Your task to perform on an android device: add a contact Image 0: 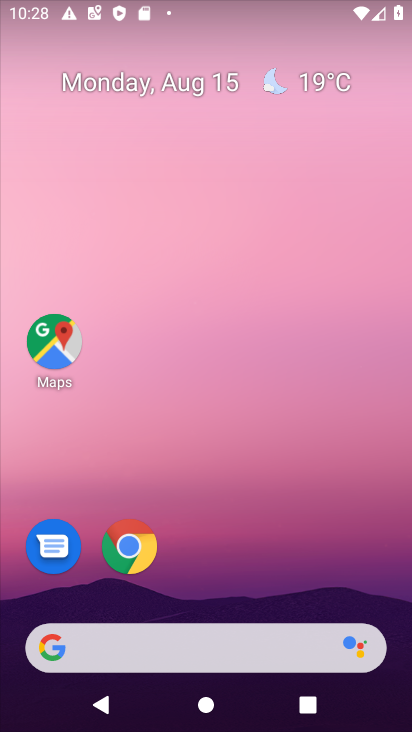
Step 0: drag from (258, 171) to (258, 95)
Your task to perform on an android device: add a contact Image 1: 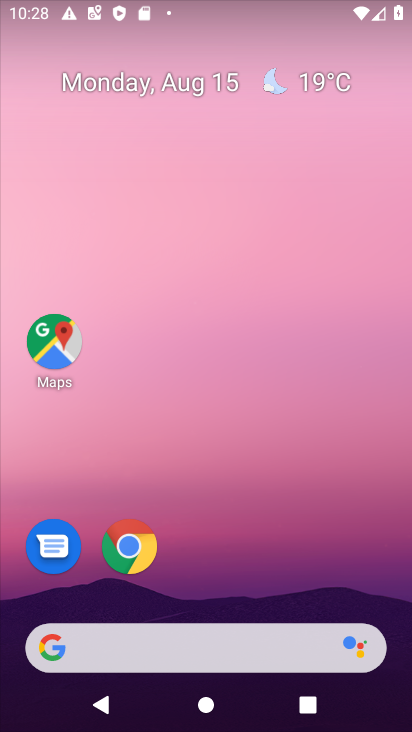
Step 1: drag from (219, 606) to (213, 74)
Your task to perform on an android device: add a contact Image 2: 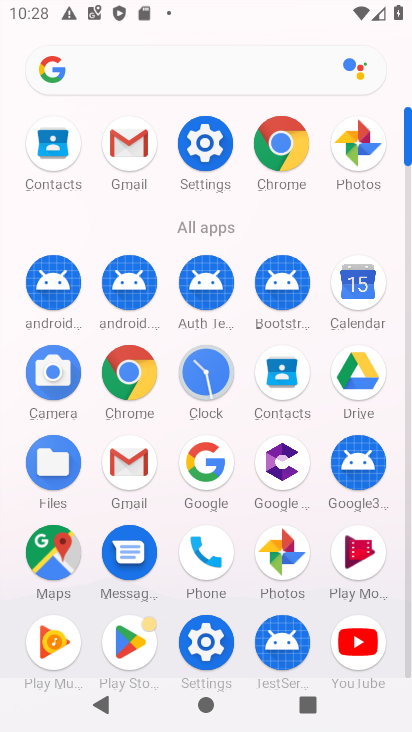
Step 2: click (287, 367)
Your task to perform on an android device: add a contact Image 3: 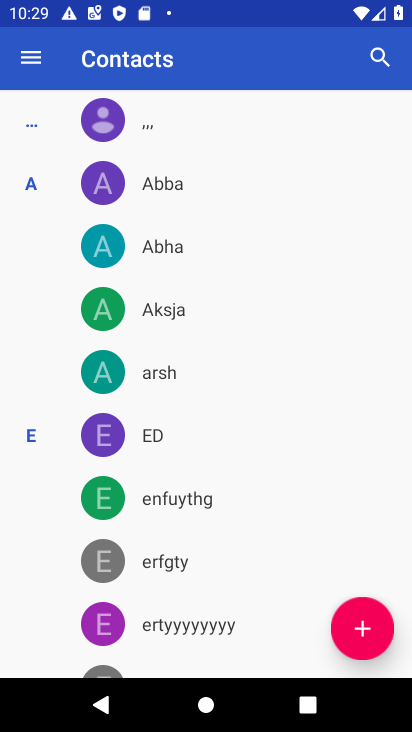
Step 3: click (357, 627)
Your task to perform on an android device: add a contact Image 4: 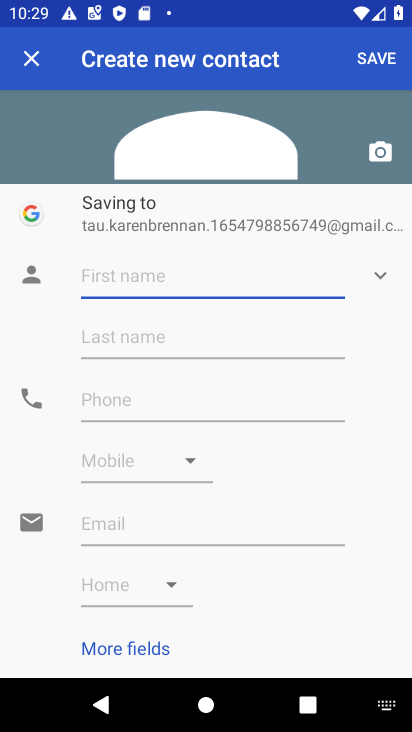
Step 4: type "yryr"
Your task to perform on an android device: add a contact Image 5: 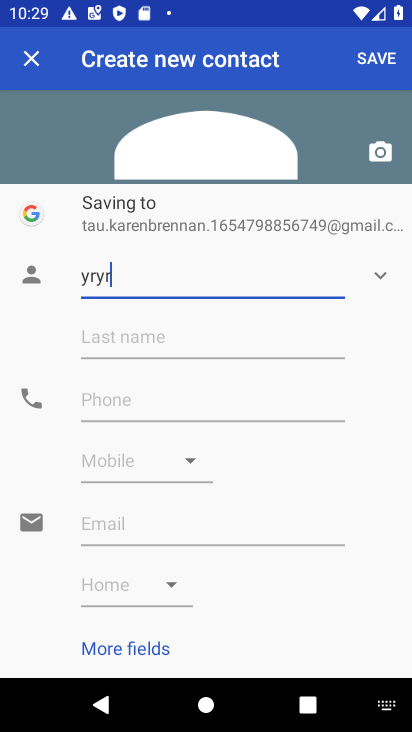
Step 5: type ""
Your task to perform on an android device: add a contact Image 6: 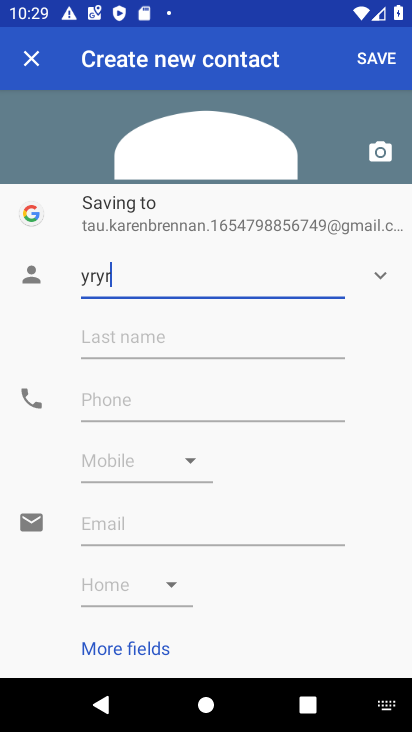
Step 6: click (149, 402)
Your task to perform on an android device: add a contact Image 7: 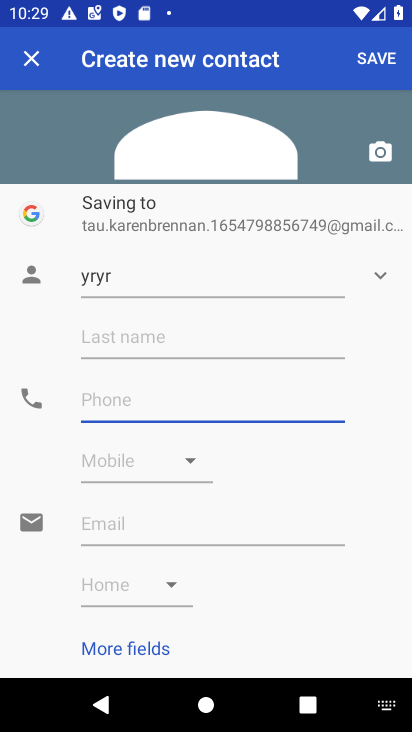
Step 7: type "56565"
Your task to perform on an android device: add a contact Image 8: 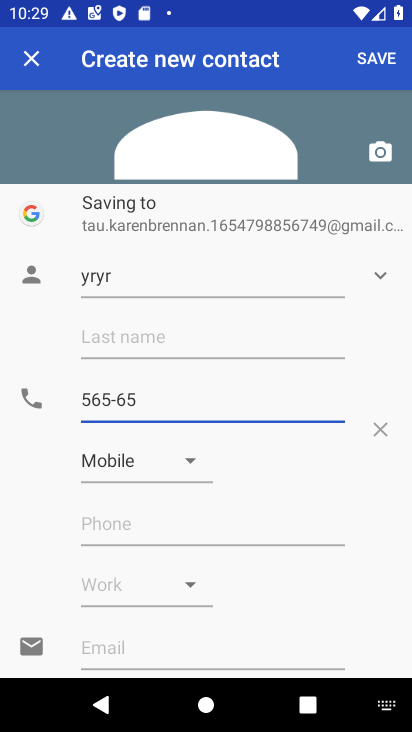
Step 8: click (385, 49)
Your task to perform on an android device: add a contact Image 9: 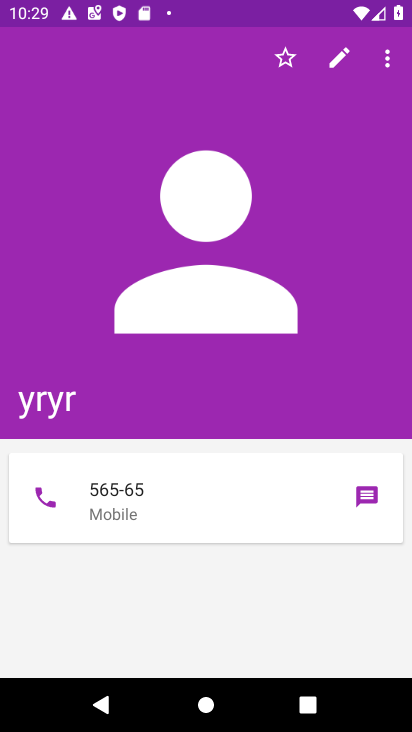
Step 9: task complete